Your task to perform on an android device: delete the emails in spam in the gmail app Image 0: 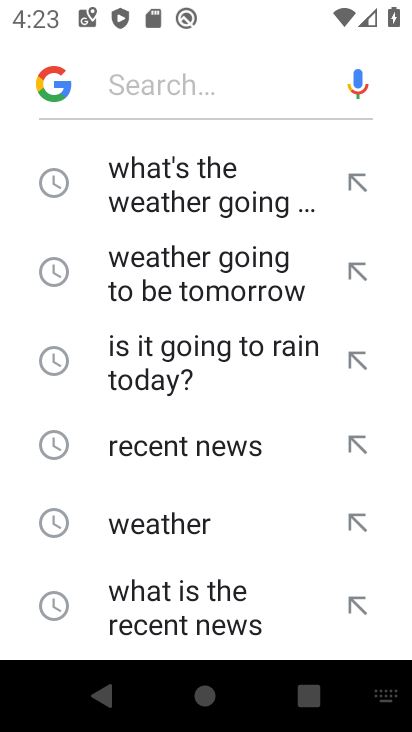
Step 0: press home button
Your task to perform on an android device: delete the emails in spam in the gmail app Image 1: 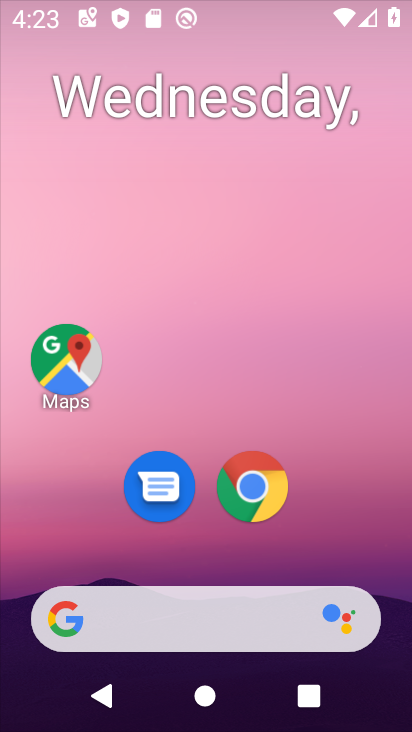
Step 1: drag from (226, 530) to (192, 144)
Your task to perform on an android device: delete the emails in spam in the gmail app Image 2: 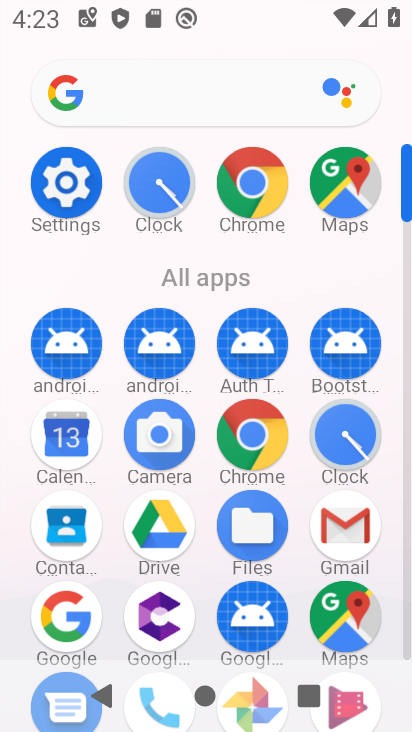
Step 2: click (337, 535)
Your task to perform on an android device: delete the emails in spam in the gmail app Image 3: 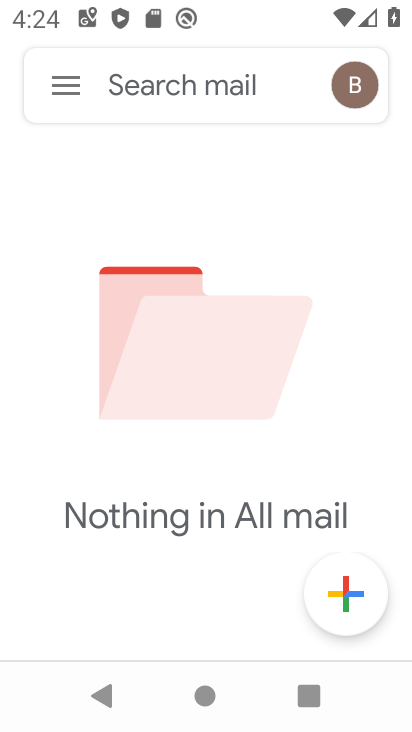
Step 3: click (62, 81)
Your task to perform on an android device: delete the emails in spam in the gmail app Image 4: 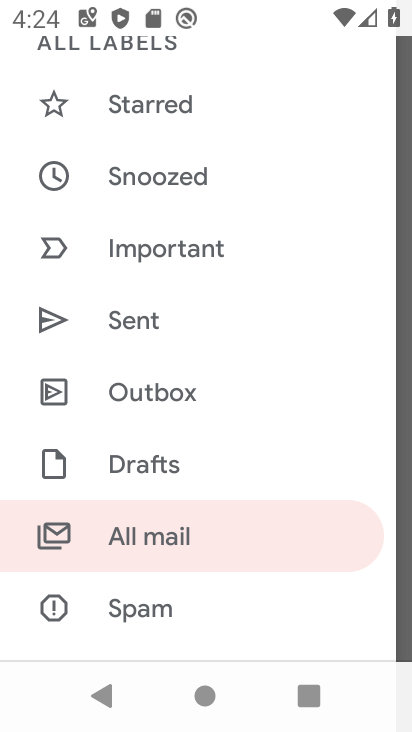
Step 4: click (218, 541)
Your task to perform on an android device: delete the emails in spam in the gmail app Image 5: 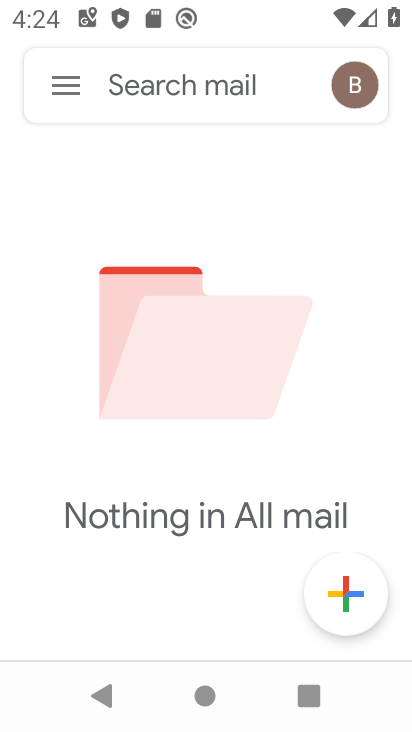
Step 5: task complete